Your task to perform on an android device: change timer sound Image 0: 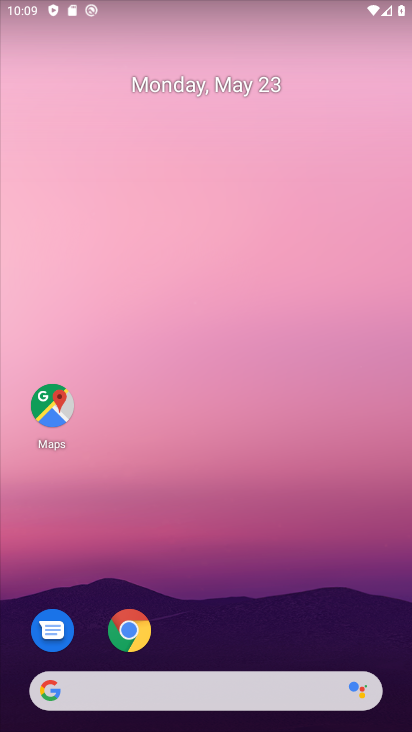
Step 0: drag from (233, 648) to (223, 6)
Your task to perform on an android device: change timer sound Image 1: 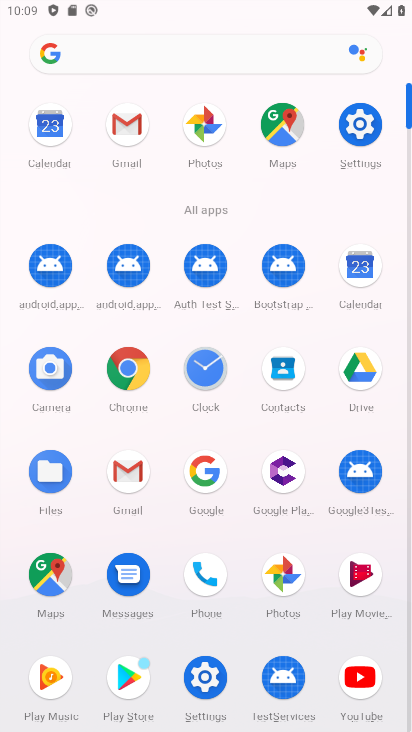
Step 1: click (210, 371)
Your task to perform on an android device: change timer sound Image 2: 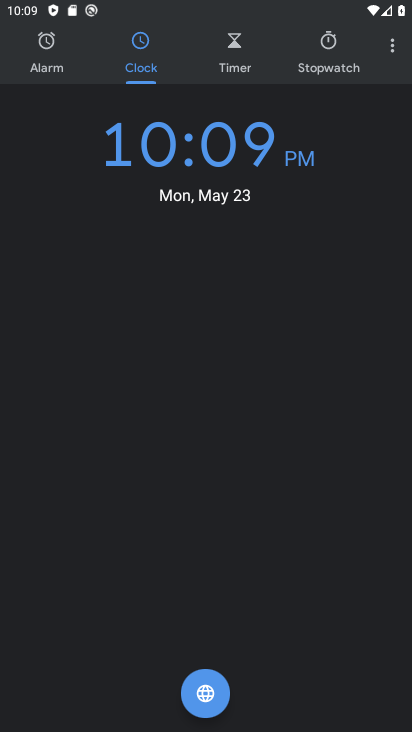
Step 2: click (394, 52)
Your task to perform on an android device: change timer sound Image 3: 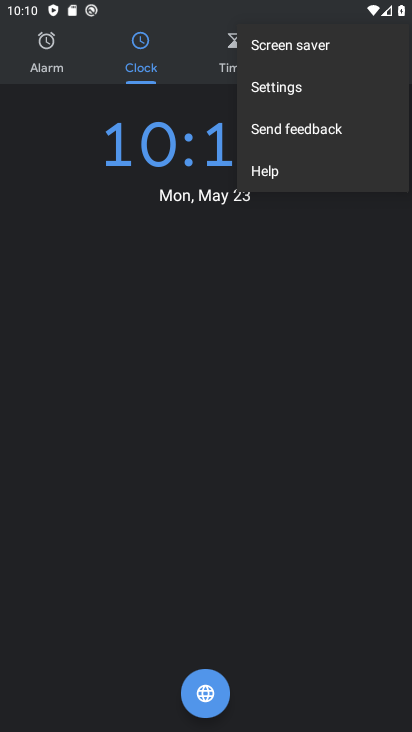
Step 3: click (272, 94)
Your task to perform on an android device: change timer sound Image 4: 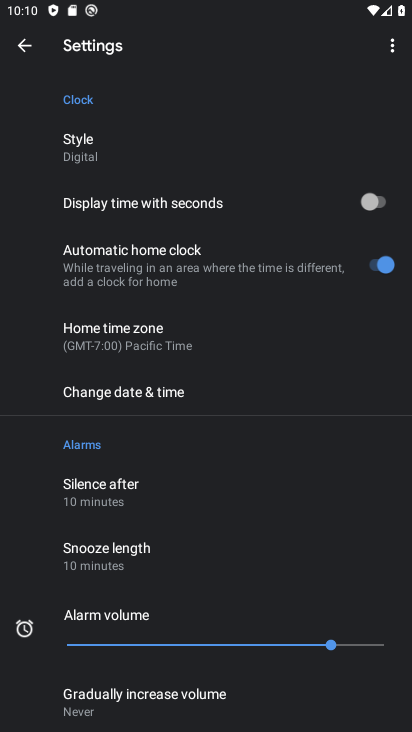
Step 4: drag from (208, 558) to (237, 61)
Your task to perform on an android device: change timer sound Image 5: 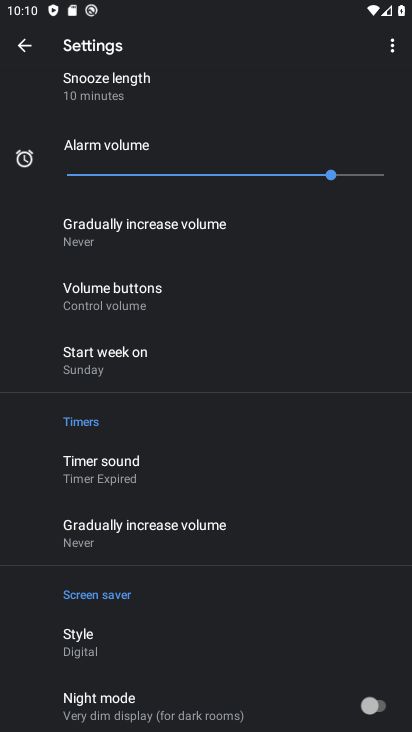
Step 5: click (115, 476)
Your task to perform on an android device: change timer sound Image 6: 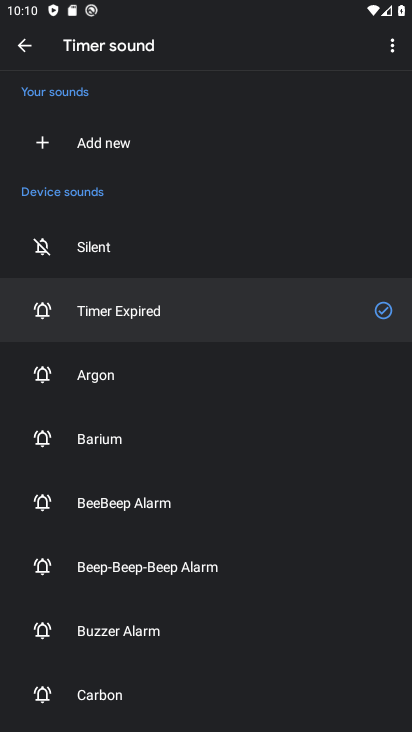
Step 6: click (99, 445)
Your task to perform on an android device: change timer sound Image 7: 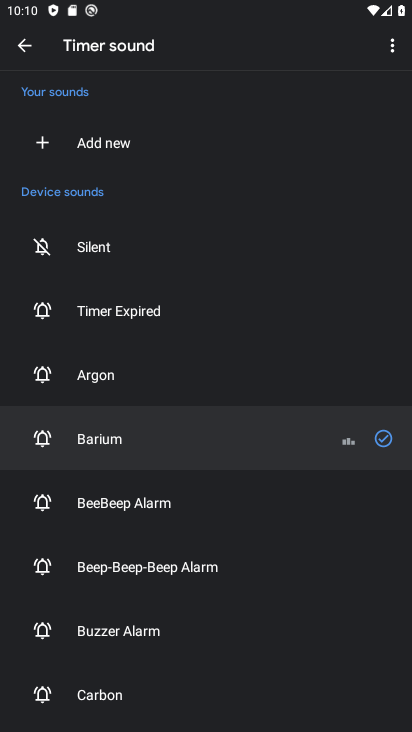
Step 7: task complete